Your task to perform on an android device: set the stopwatch Image 0: 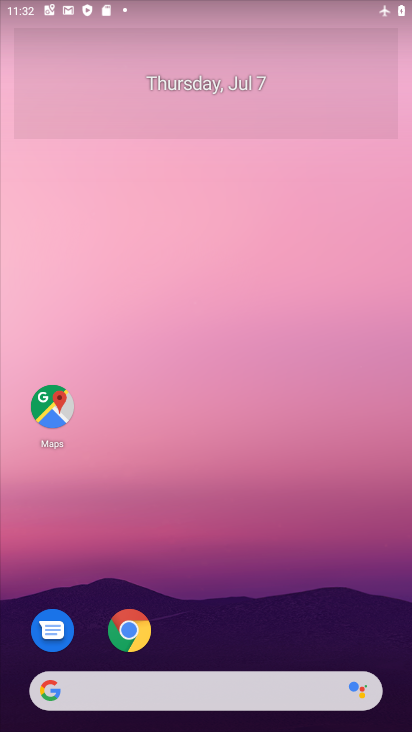
Step 0: drag from (235, 611) to (220, 219)
Your task to perform on an android device: set the stopwatch Image 1: 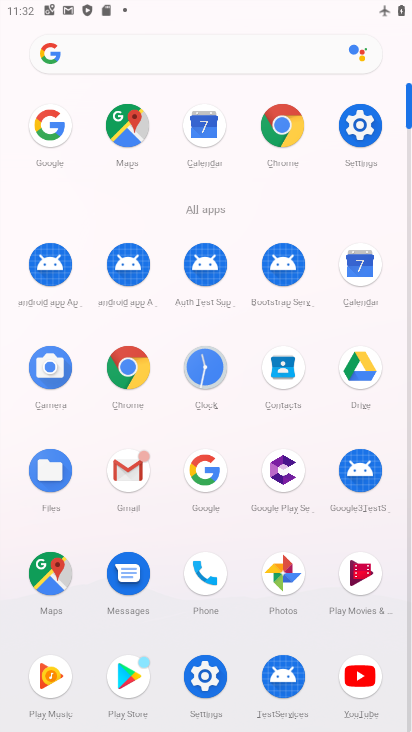
Step 1: click (205, 362)
Your task to perform on an android device: set the stopwatch Image 2: 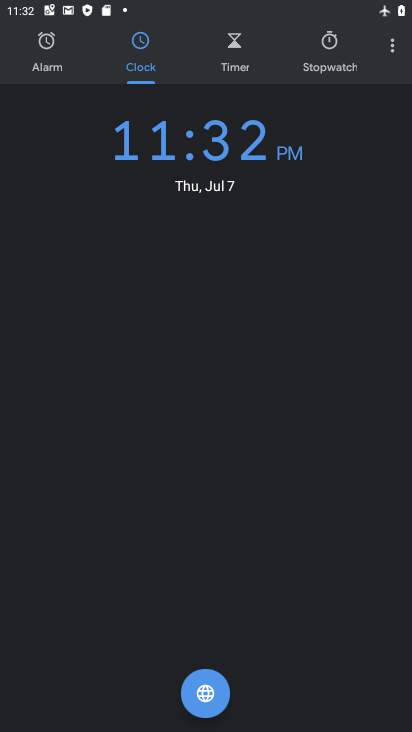
Step 2: click (331, 40)
Your task to perform on an android device: set the stopwatch Image 3: 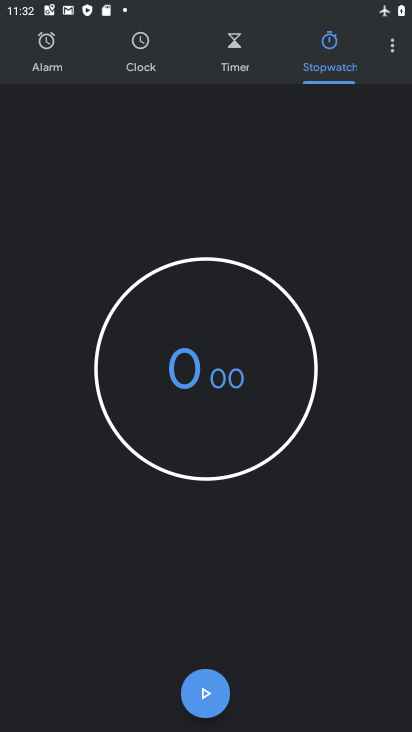
Step 3: click (214, 706)
Your task to perform on an android device: set the stopwatch Image 4: 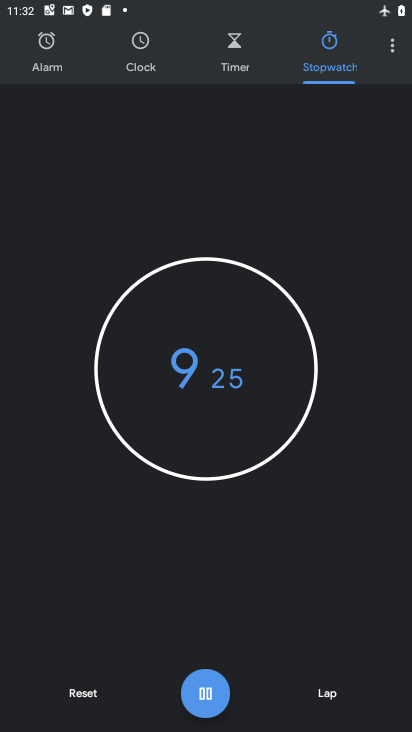
Step 4: task complete